Your task to perform on an android device: Go to sound settings Image 0: 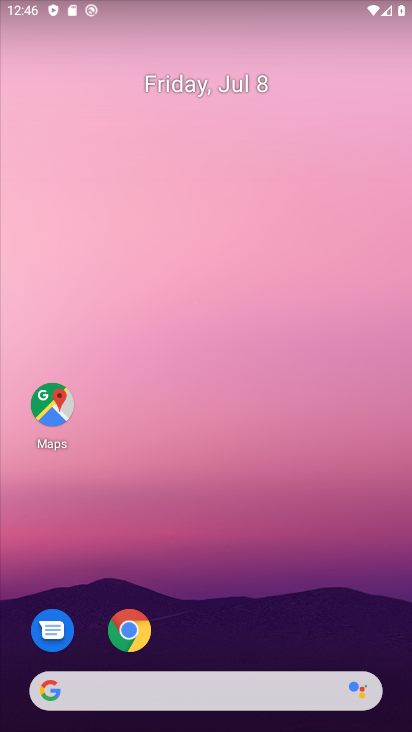
Step 0: drag from (223, 111) to (235, 10)
Your task to perform on an android device: Go to sound settings Image 1: 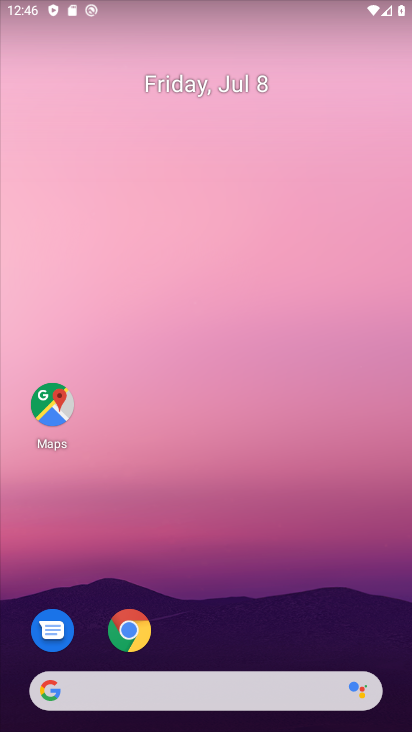
Step 1: drag from (196, 681) to (228, 33)
Your task to perform on an android device: Go to sound settings Image 2: 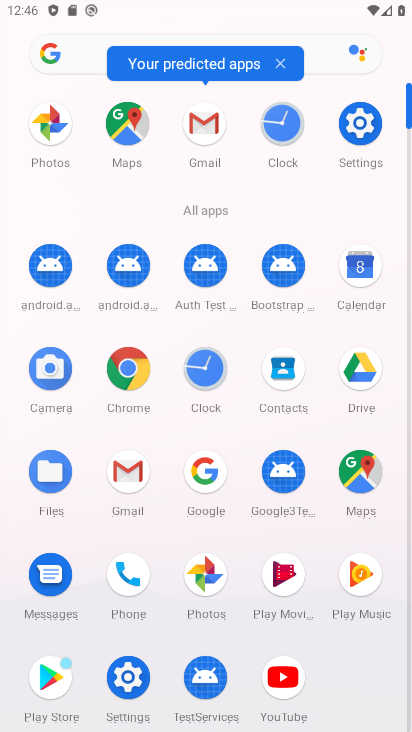
Step 2: click (352, 111)
Your task to perform on an android device: Go to sound settings Image 3: 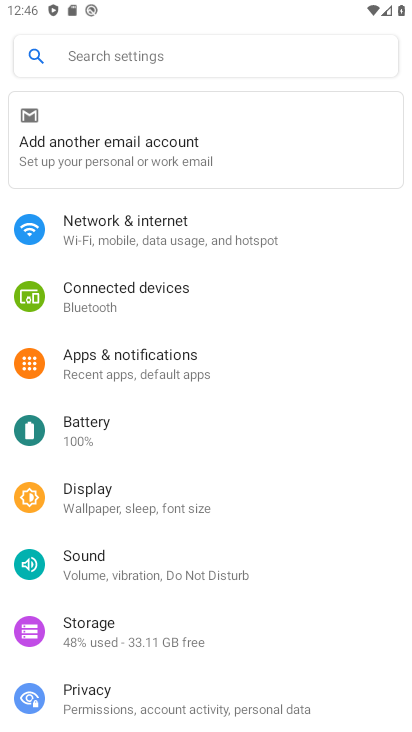
Step 3: click (99, 567)
Your task to perform on an android device: Go to sound settings Image 4: 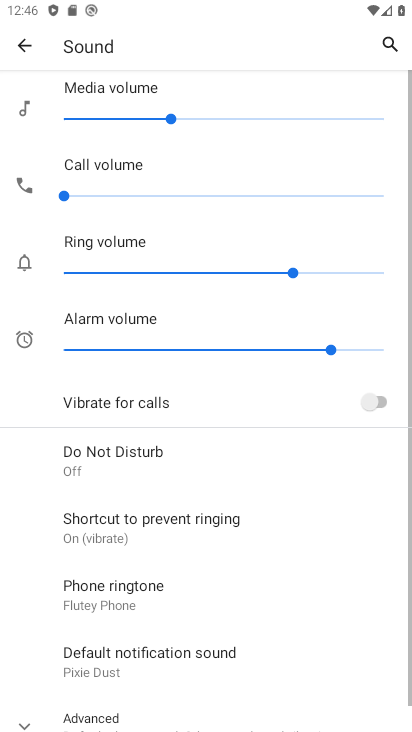
Step 4: task complete